Your task to perform on an android device: Search for pizza restaurants on Maps Image 0: 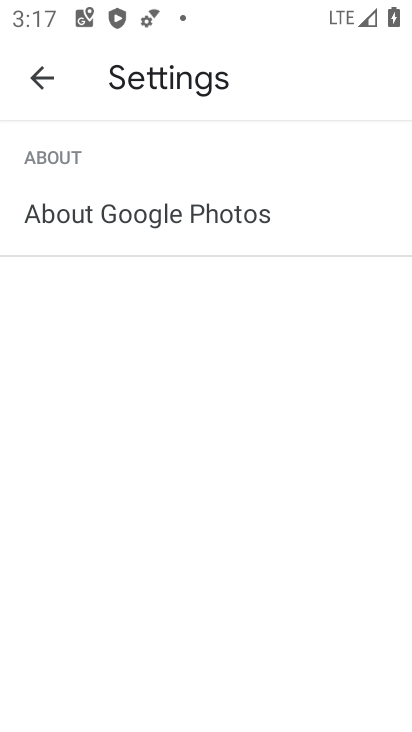
Step 0: press home button
Your task to perform on an android device: Search for pizza restaurants on Maps Image 1: 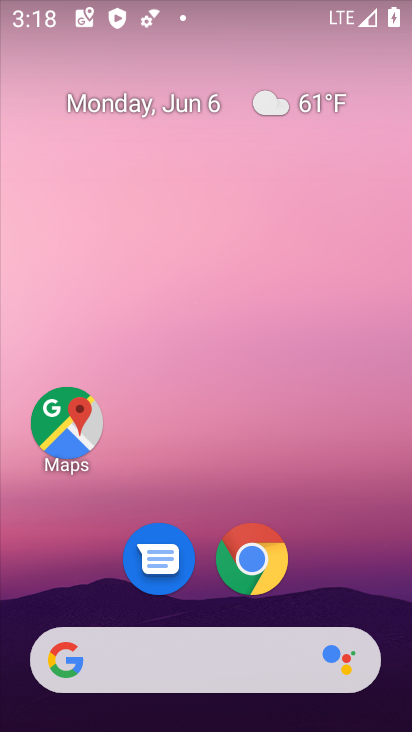
Step 1: click (74, 411)
Your task to perform on an android device: Search for pizza restaurants on Maps Image 2: 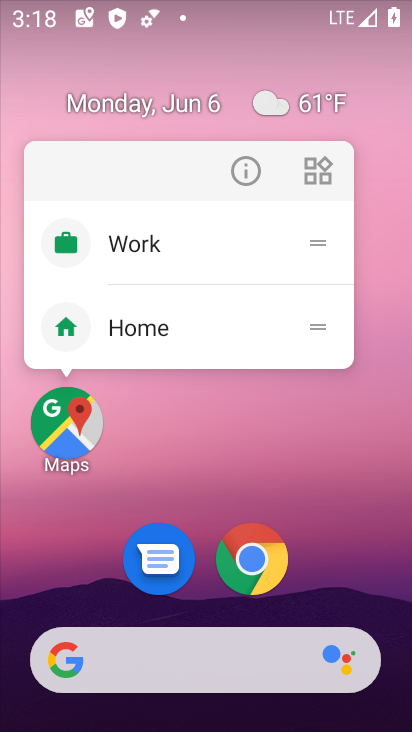
Step 2: click (73, 398)
Your task to perform on an android device: Search for pizza restaurants on Maps Image 3: 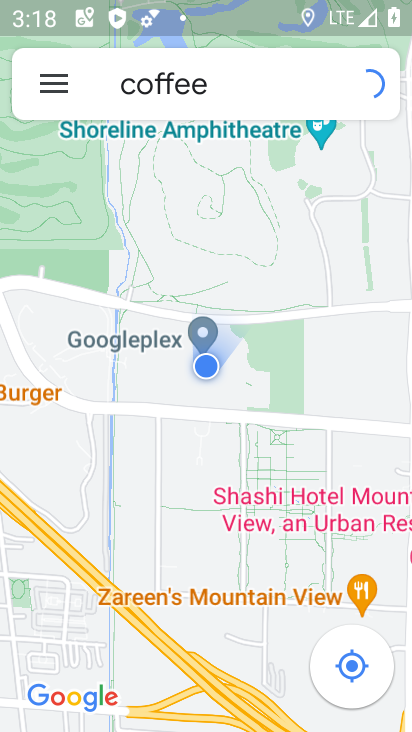
Step 3: click (248, 83)
Your task to perform on an android device: Search for pizza restaurants on Maps Image 4: 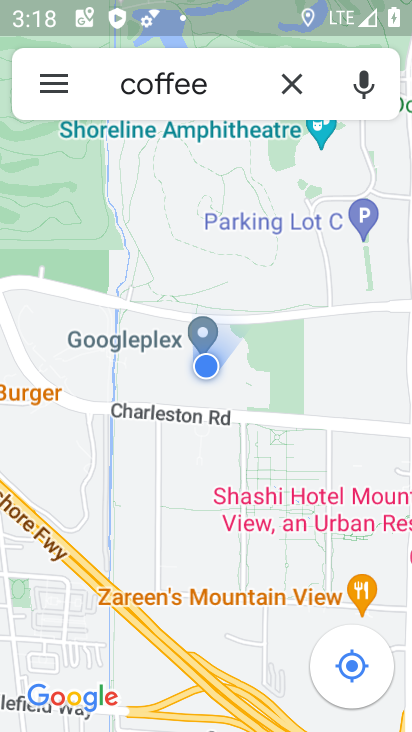
Step 4: click (293, 86)
Your task to perform on an android device: Search for pizza restaurants on Maps Image 5: 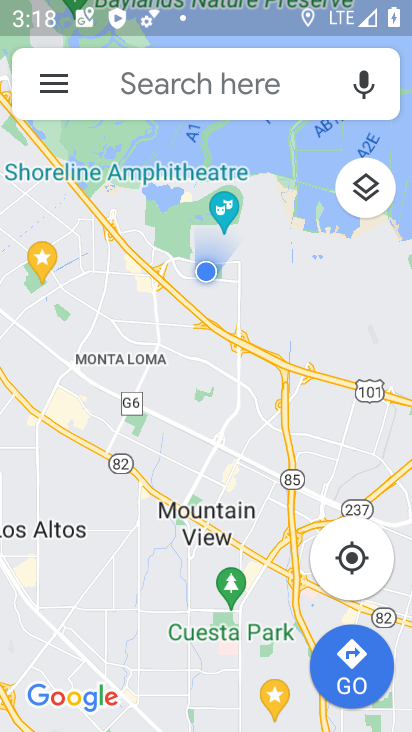
Step 5: click (236, 83)
Your task to perform on an android device: Search for pizza restaurants on Maps Image 6: 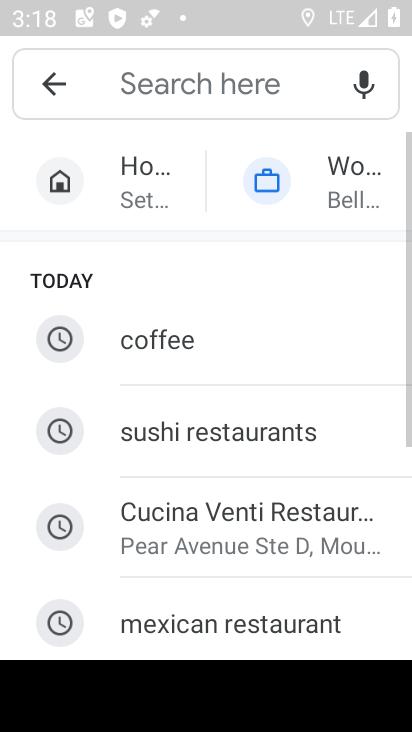
Step 6: drag from (225, 491) to (169, 153)
Your task to perform on an android device: Search for pizza restaurants on Maps Image 7: 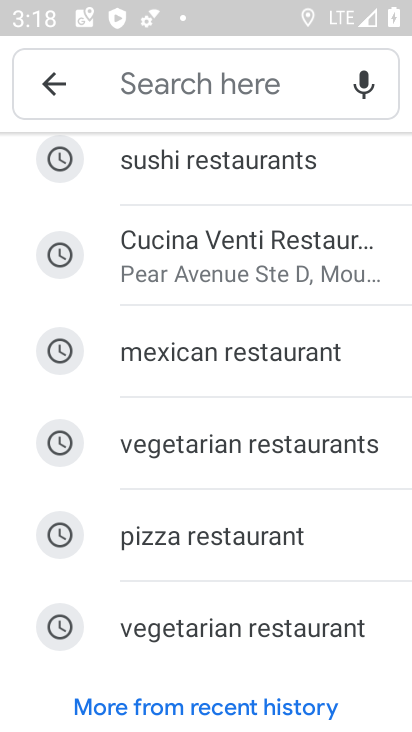
Step 7: click (204, 524)
Your task to perform on an android device: Search for pizza restaurants on Maps Image 8: 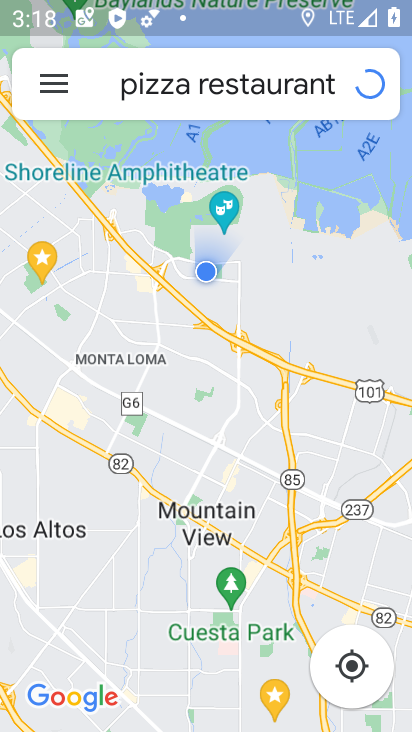
Step 8: task complete